Your task to perform on an android device: Open accessibility settings Image 0: 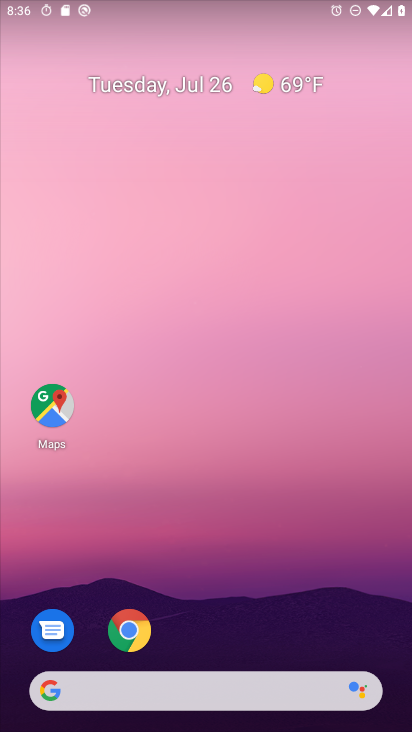
Step 0: drag from (264, 595) to (251, 170)
Your task to perform on an android device: Open accessibility settings Image 1: 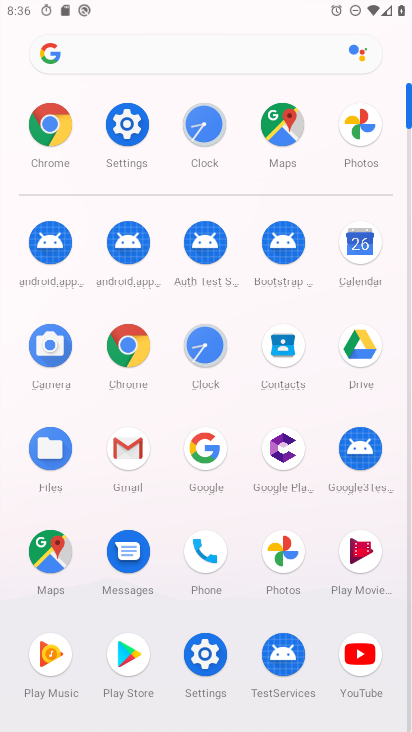
Step 1: click (225, 660)
Your task to perform on an android device: Open accessibility settings Image 2: 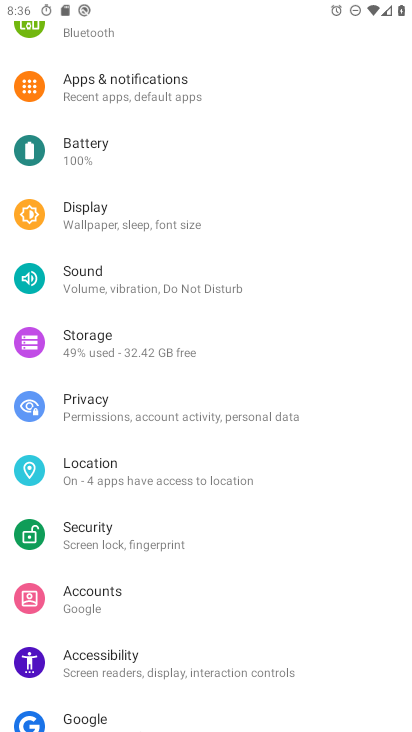
Step 2: click (182, 672)
Your task to perform on an android device: Open accessibility settings Image 3: 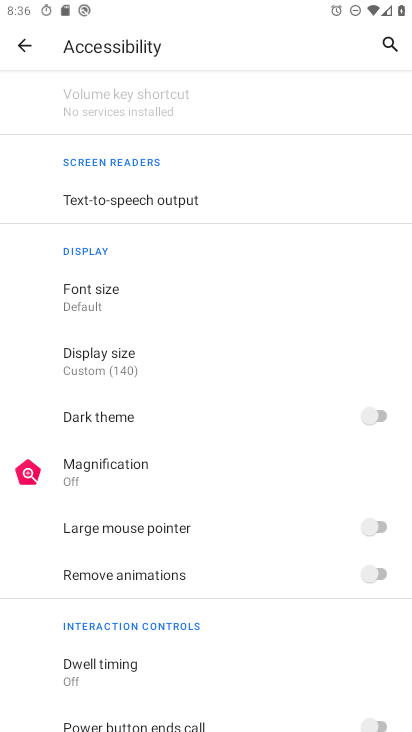
Step 3: task complete